Your task to perform on an android device: Search for a new mascara Image 0: 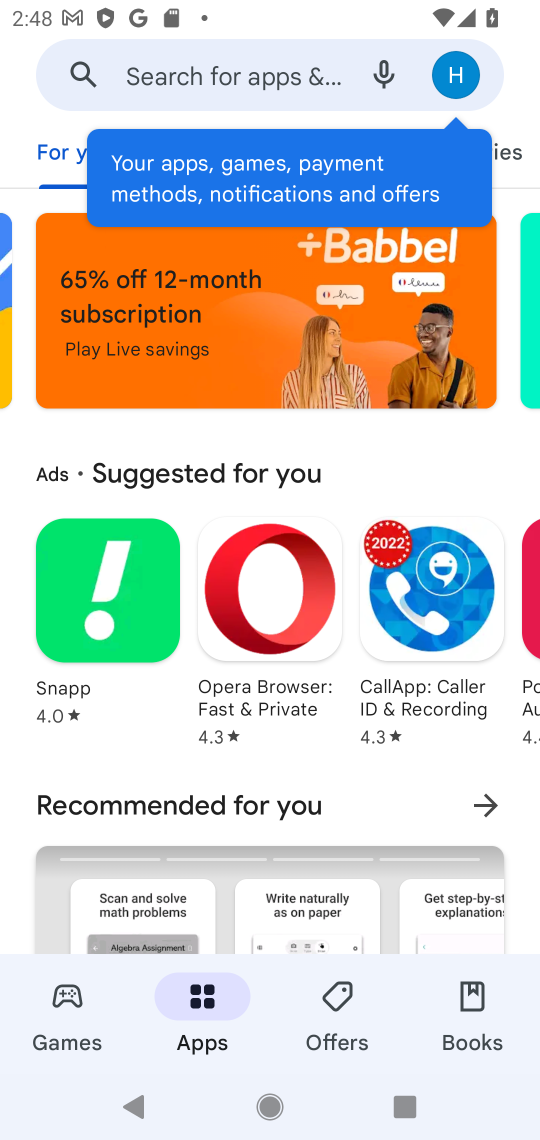
Step 0: press home button
Your task to perform on an android device: Search for a new mascara Image 1: 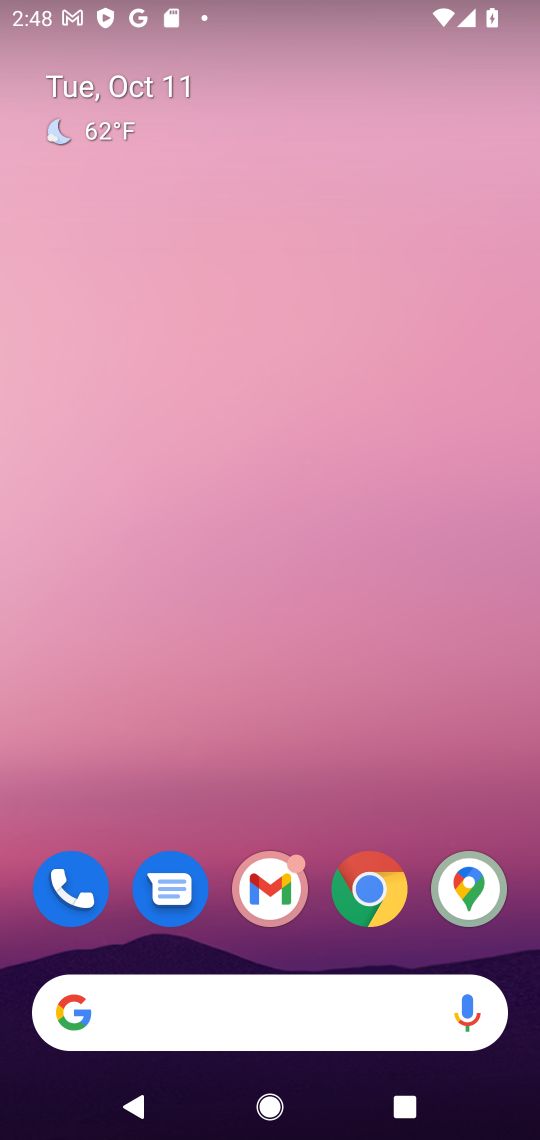
Step 1: drag from (286, 924) to (309, 129)
Your task to perform on an android device: Search for a new mascara Image 2: 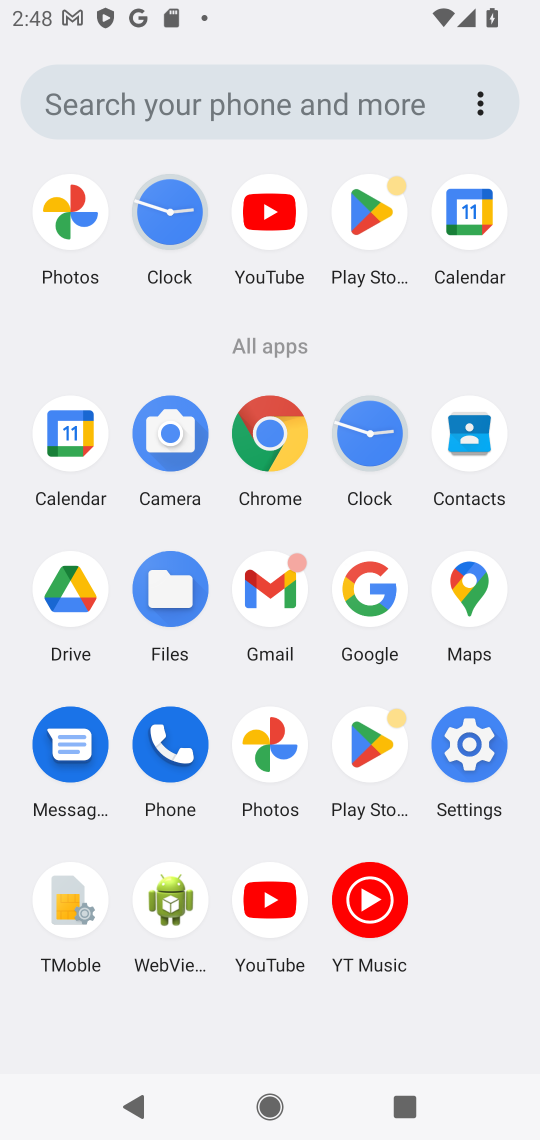
Step 2: click (360, 576)
Your task to perform on an android device: Search for a new mascara Image 3: 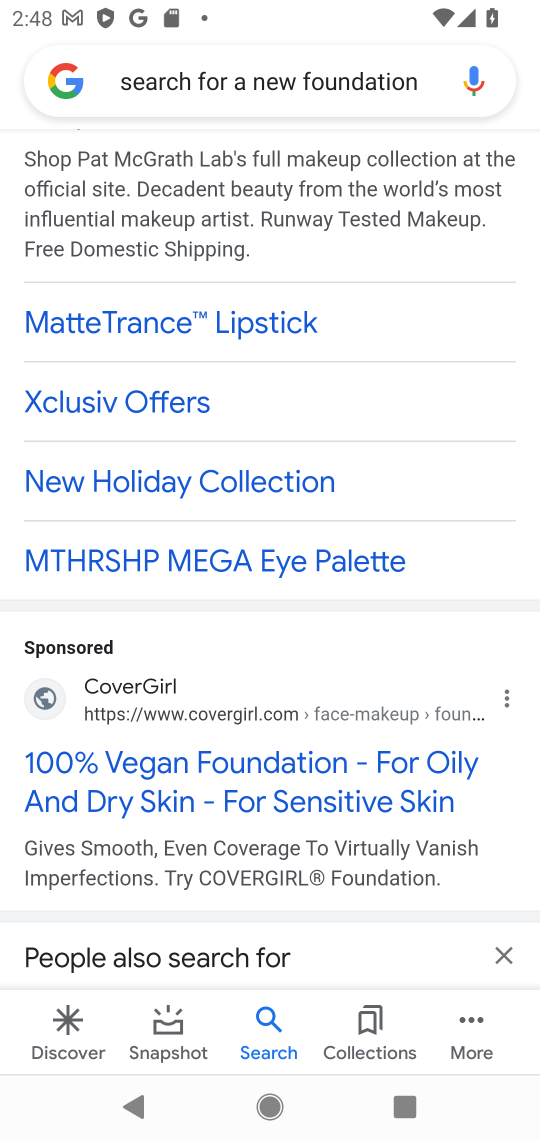
Step 3: click (249, 72)
Your task to perform on an android device: Search for a new mascara Image 4: 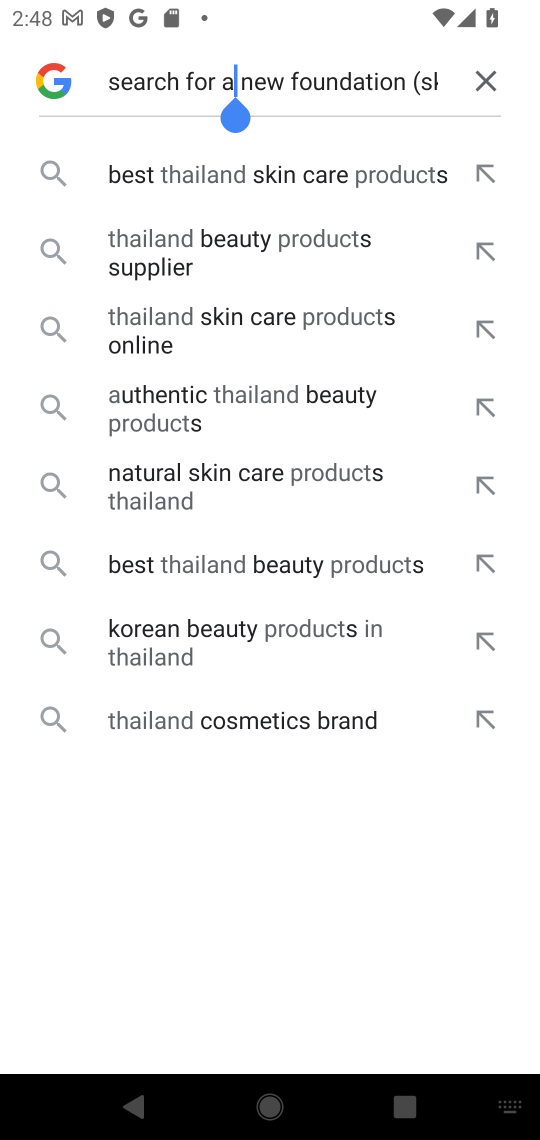
Step 4: click (468, 74)
Your task to perform on an android device: Search for a new mascara Image 5: 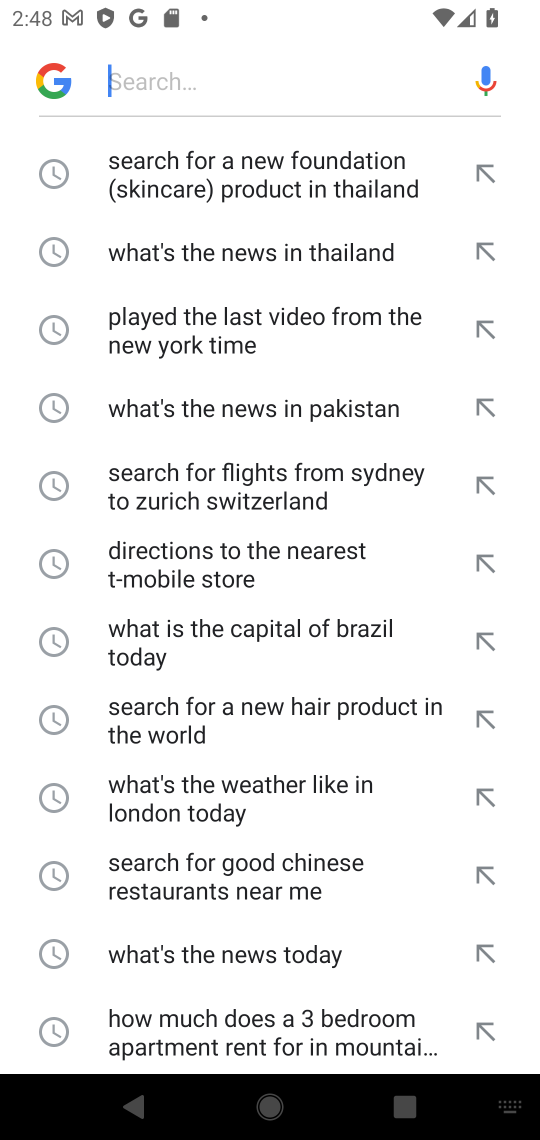
Step 5: click (217, 70)
Your task to perform on an android device: Search for a new mascara Image 6: 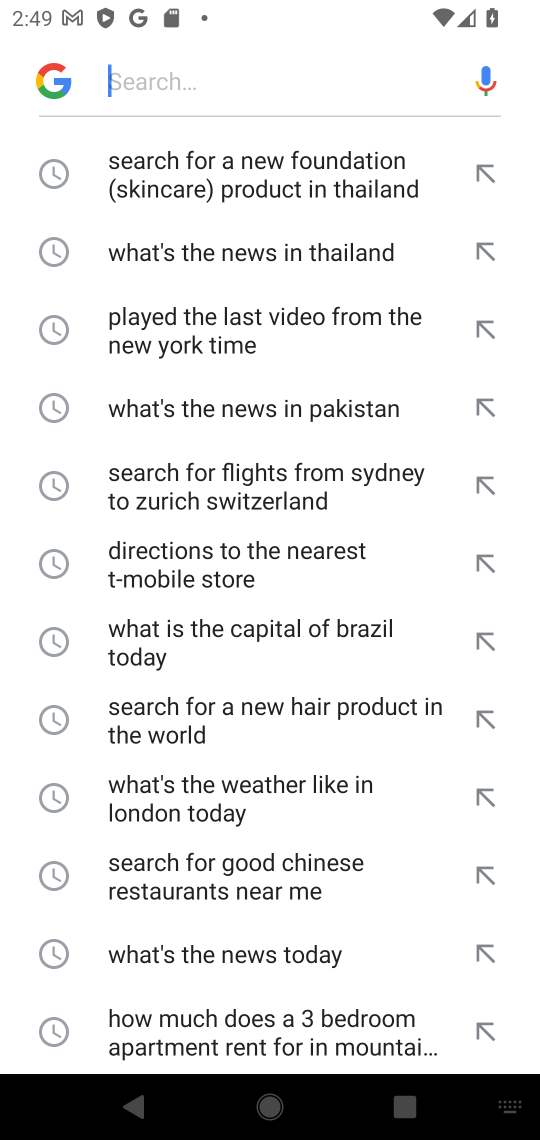
Step 6: type "Search for a new mascara "
Your task to perform on an android device: Search for a new mascara Image 7: 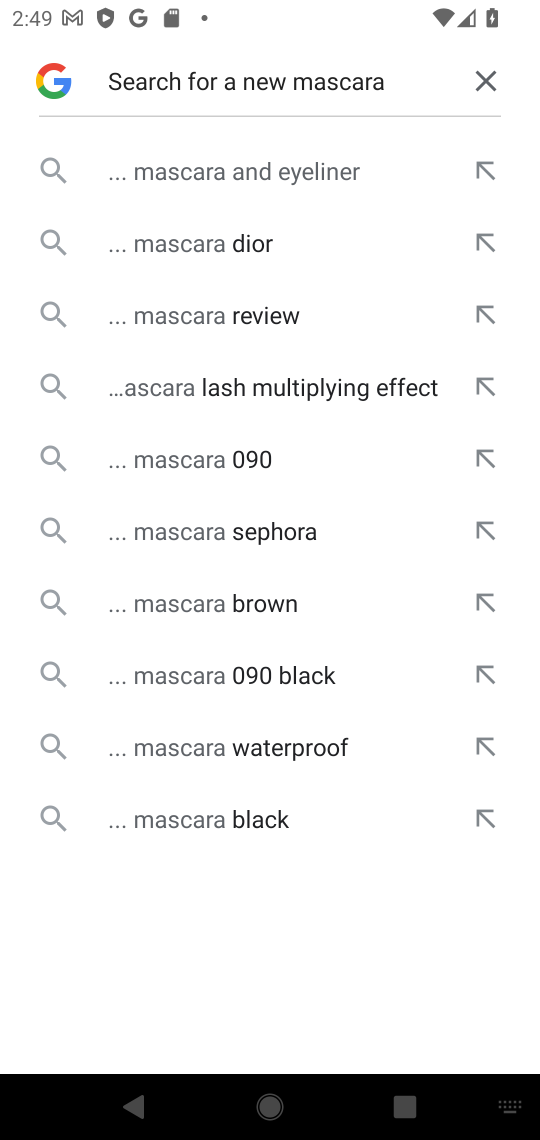
Step 7: click (241, 176)
Your task to perform on an android device: Search for a new mascara Image 8: 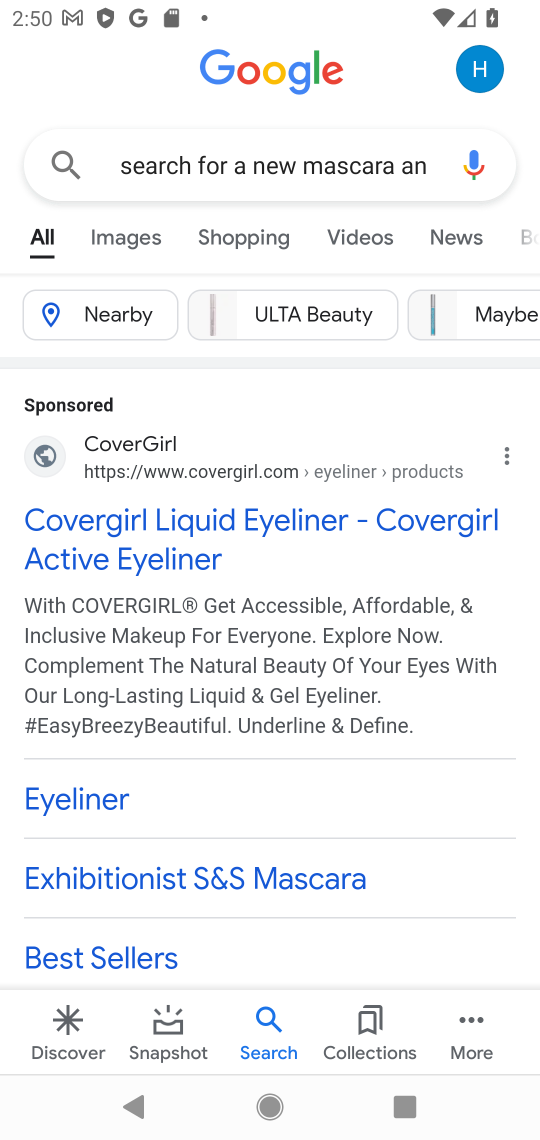
Step 8: click (96, 787)
Your task to perform on an android device: Search for a new mascara Image 9: 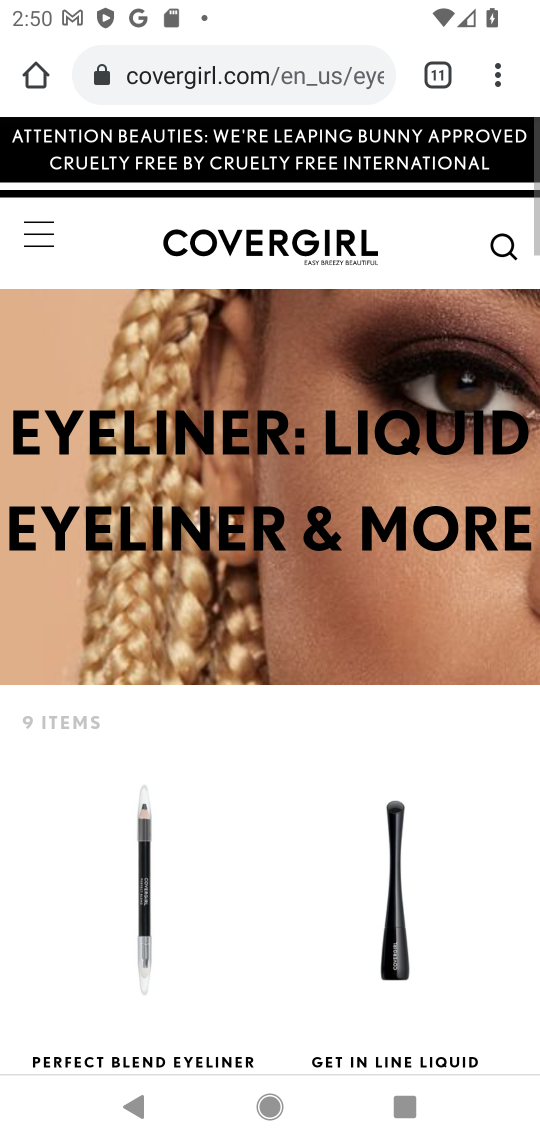
Step 9: press back button
Your task to perform on an android device: Search for a new mascara Image 10: 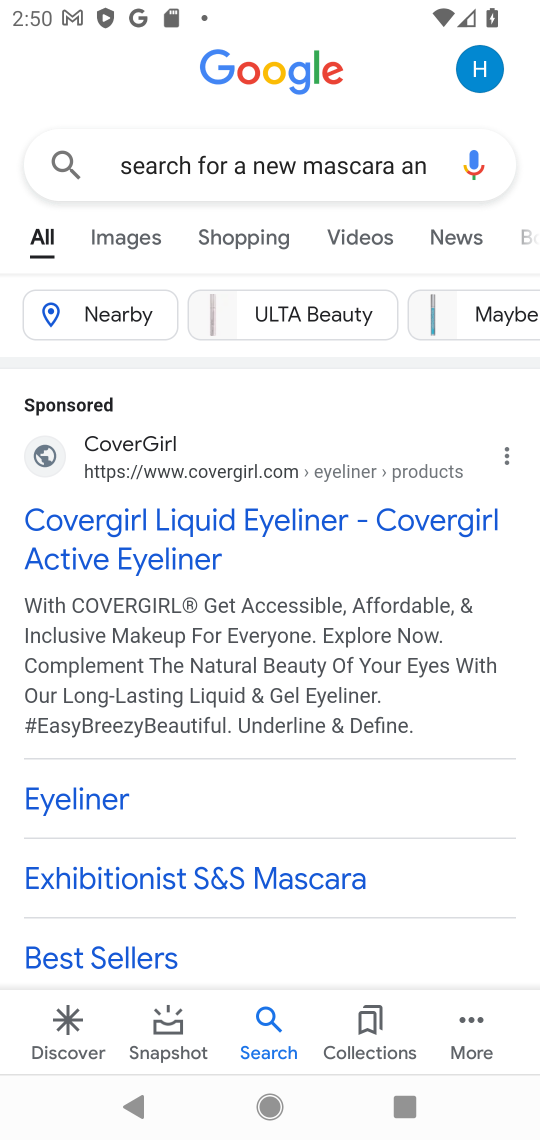
Step 10: press back button
Your task to perform on an android device: Search for a new mascara Image 11: 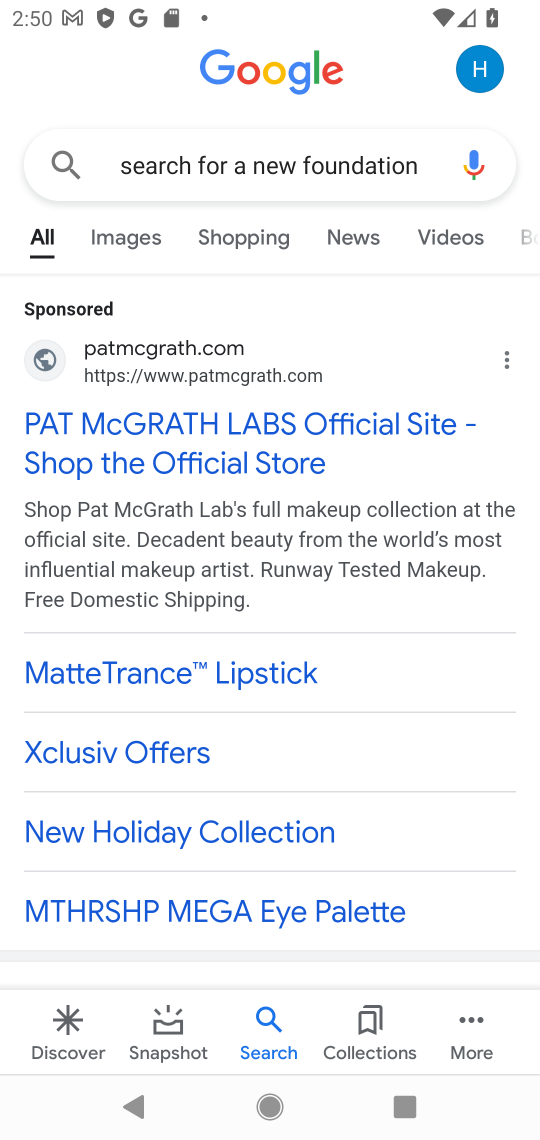
Step 11: drag from (289, 772) to (348, 406)
Your task to perform on an android device: Search for a new mascara Image 12: 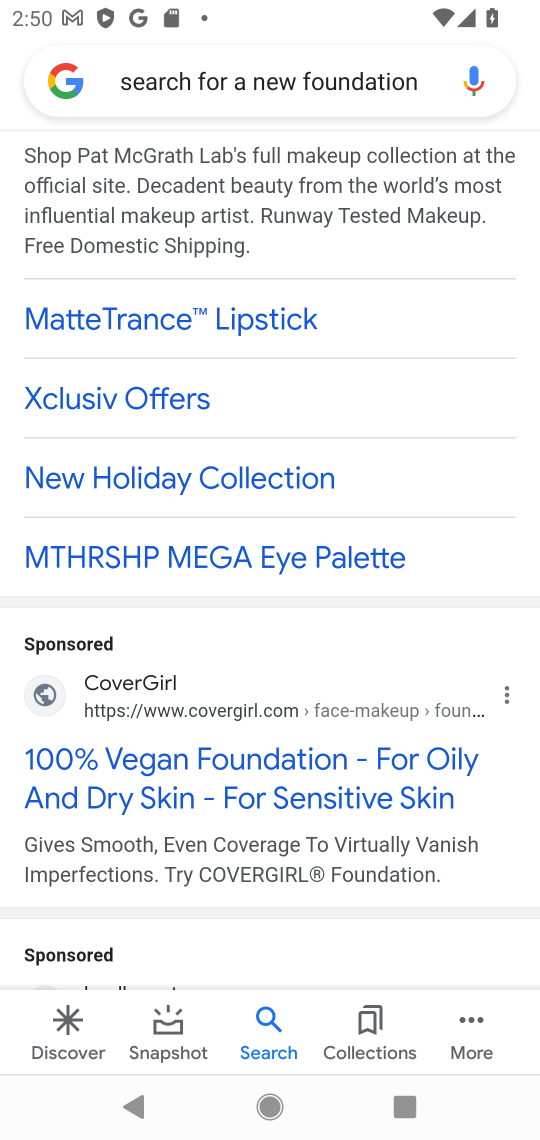
Step 12: click (316, 57)
Your task to perform on an android device: Search for a new mascara Image 13: 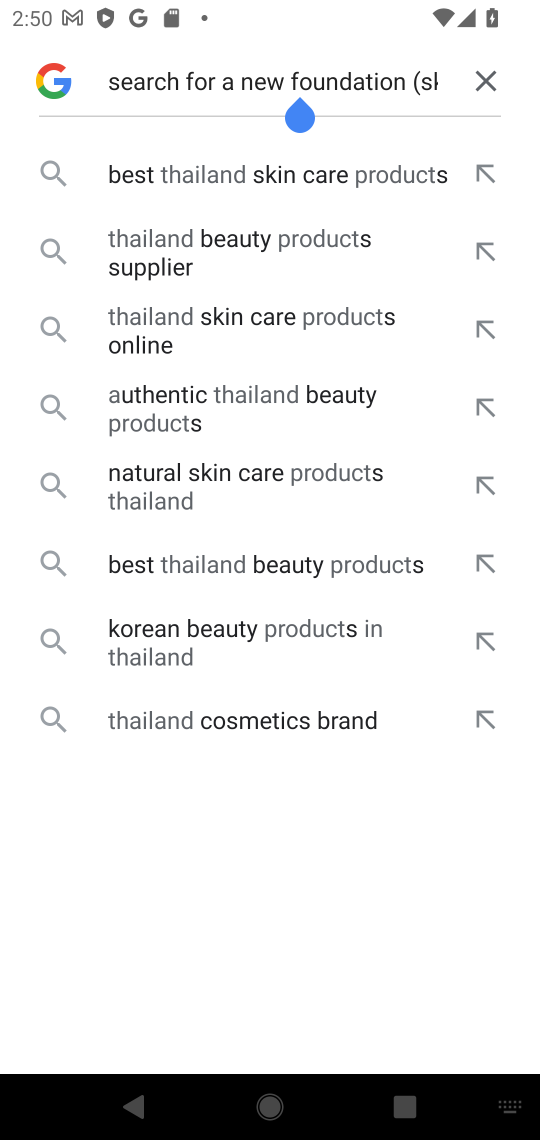
Step 13: click (487, 77)
Your task to perform on an android device: Search for a new mascara Image 14: 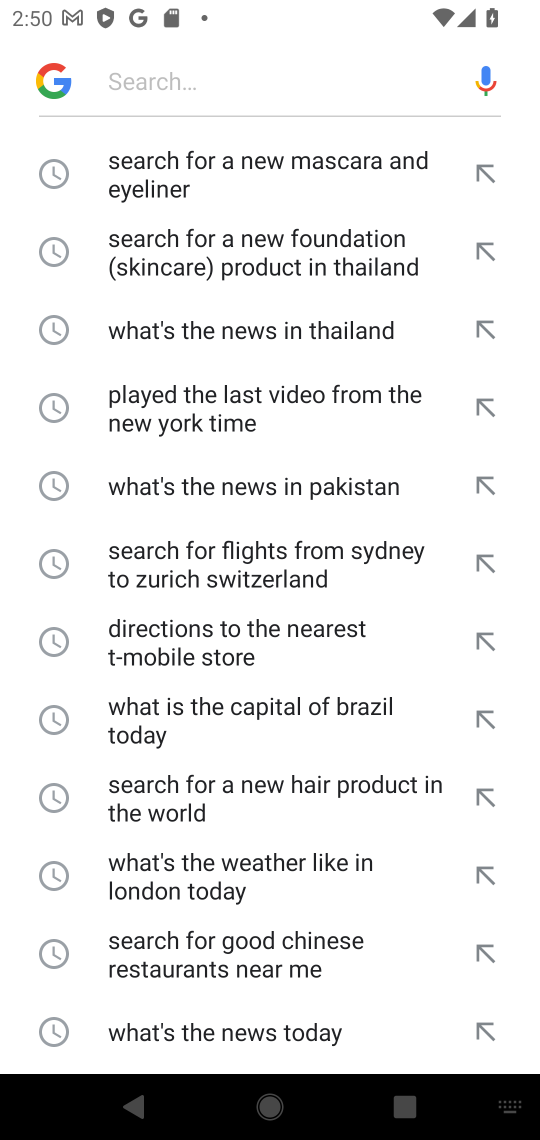
Step 14: click (207, 81)
Your task to perform on an android device: Search for a new mascara Image 15: 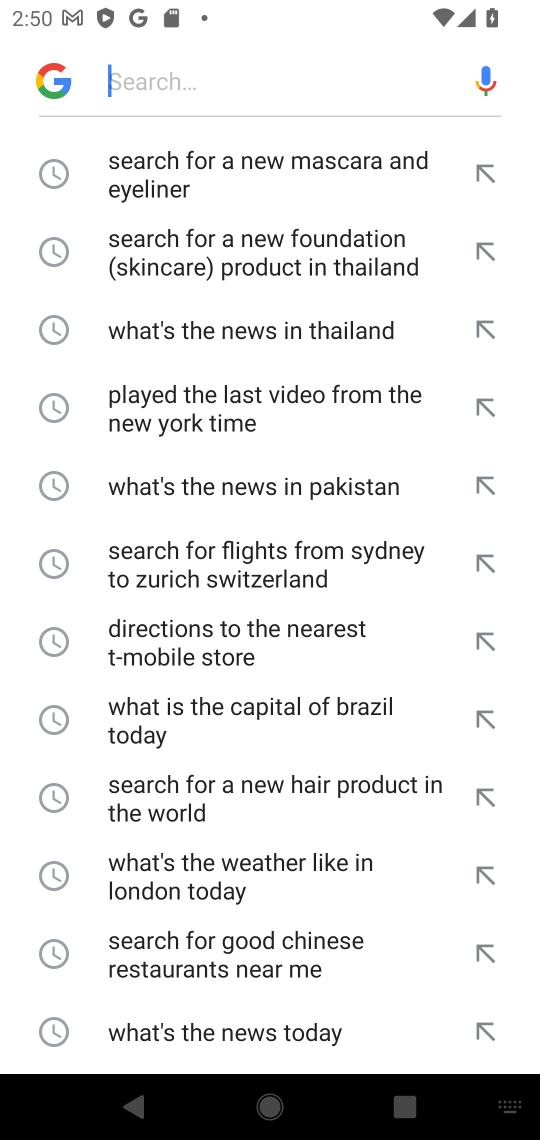
Step 15: type "Search for a new mascara "
Your task to perform on an android device: Search for a new mascara Image 16: 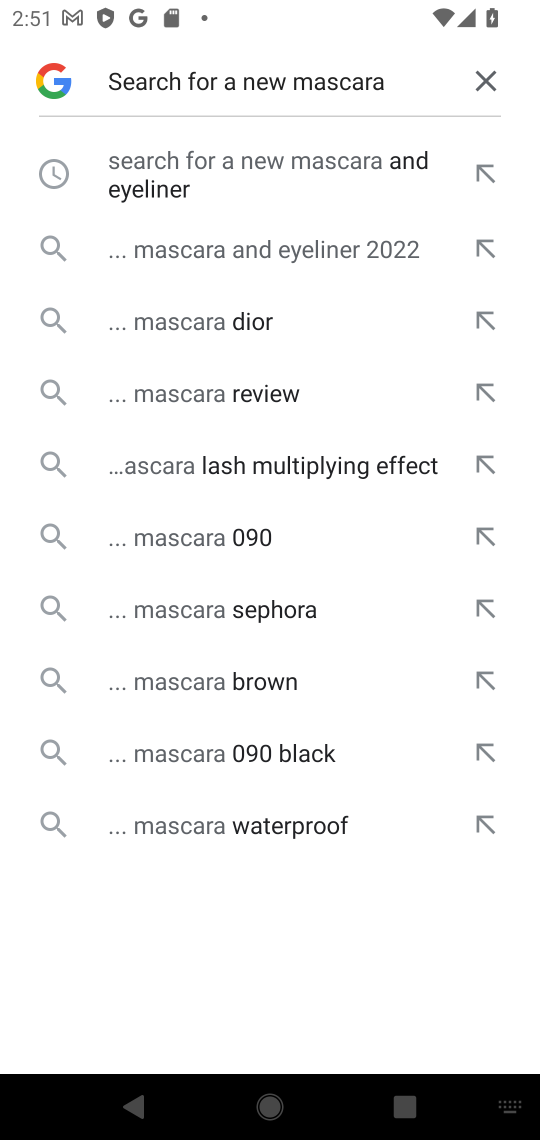
Step 16: click (271, 310)
Your task to perform on an android device: Search for a new mascara Image 17: 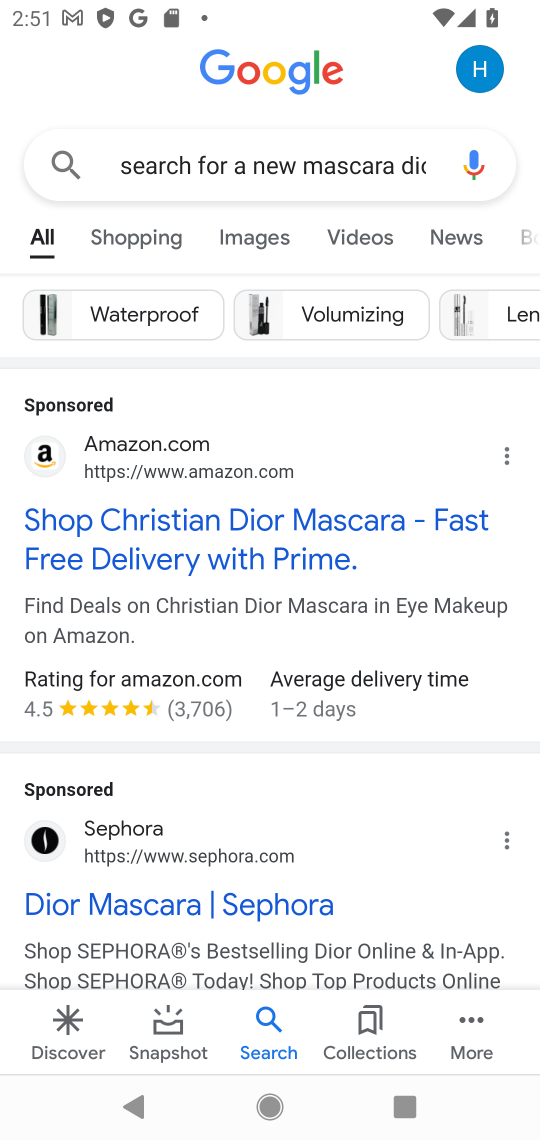
Step 17: click (135, 560)
Your task to perform on an android device: Search for a new mascara Image 18: 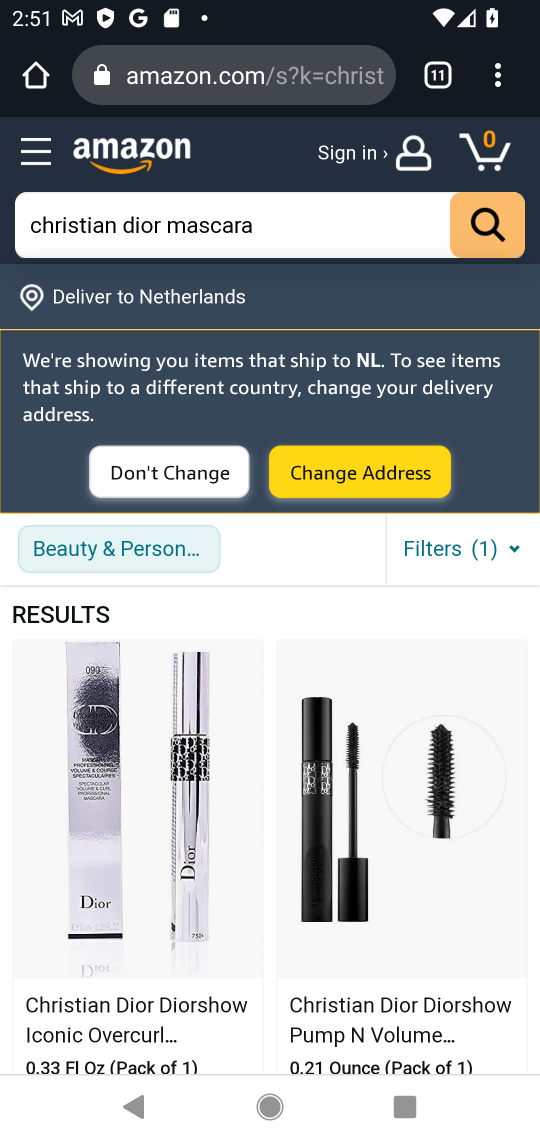
Step 18: task complete